Your task to perform on an android device: toggle show notifications on the lock screen Image 0: 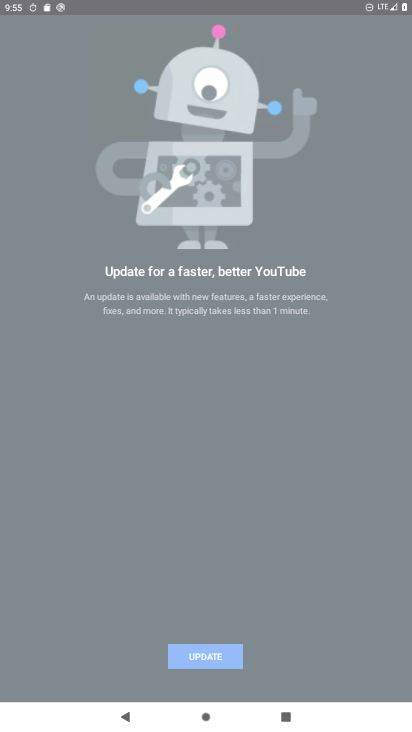
Step 0: drag from (185, 5) to (207, 576)
Your task to perform on an android device: toggle show notifications on the lock screen Image 1: 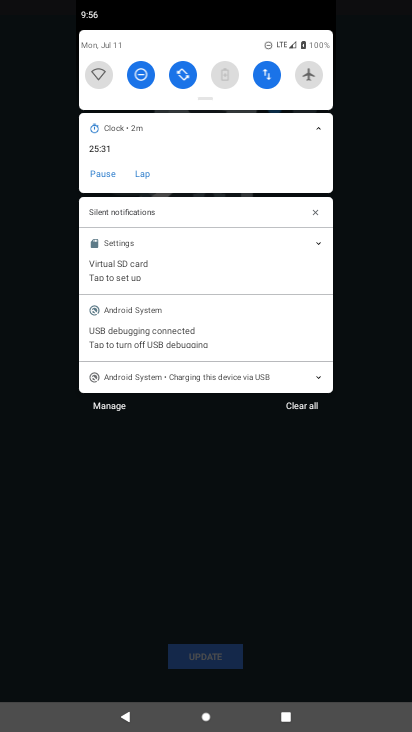
Step 1: drag from (208, 49) to (232, 642)
Your task to perform on an android device: toggle show notifications on the lock screen Image 2: 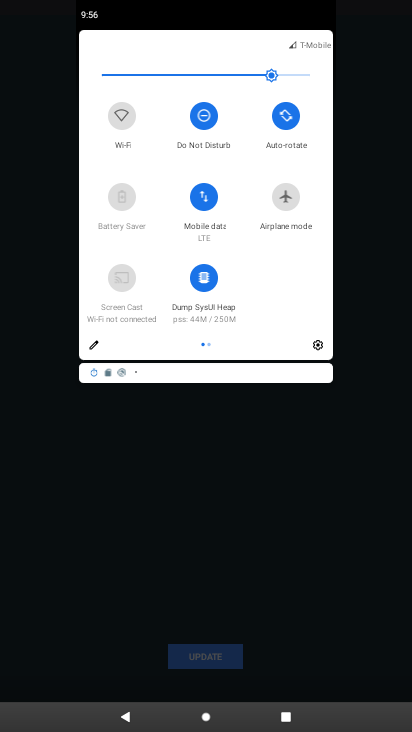
Step 2: click (325, 343)
Your task to perform on an android device: toggle show notifications on the lock screen Image 3: 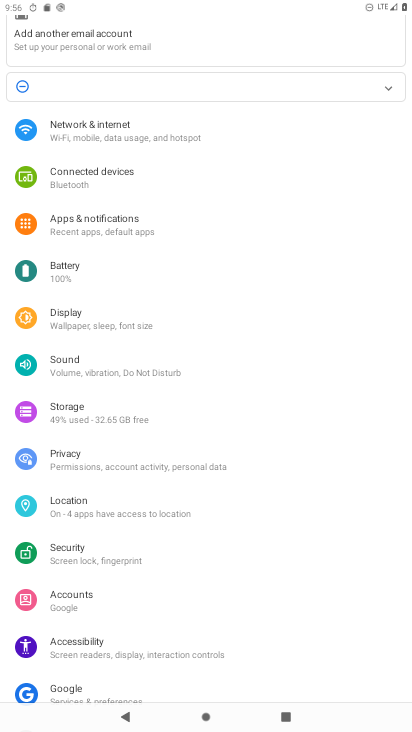
Step 3: click (181, 223)
Your task to perform on an android device: toggle show notifications on the lock screen Image 4: 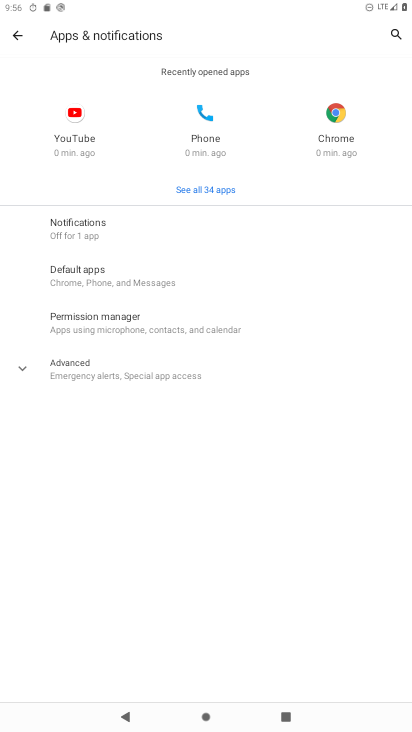
Step 4: click (181, 223)
Your task to perform on an android device: toggle show notifications on the lock screen Image 5: 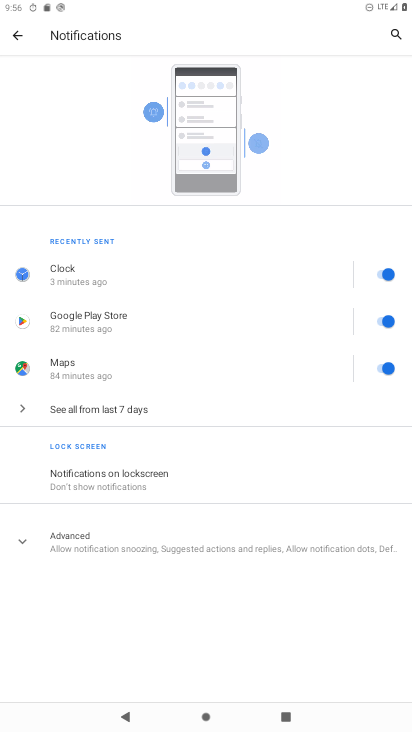
Step 5: click (171, 487)
Your task to perform on an android device: toggle show notifications on the lock screen Image 6: 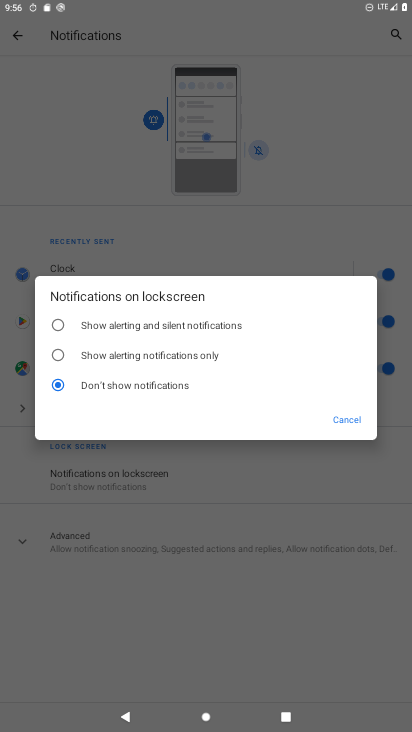
Step 6: click (159, 334)
Your task to perform on an android device: toggle show notifications on the lock screen Image 7: 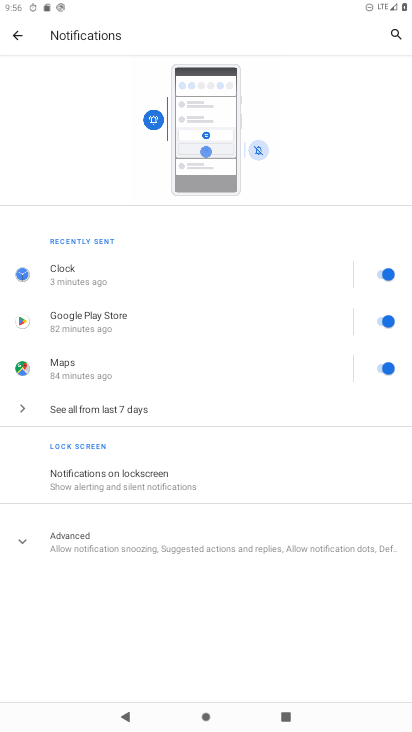
Step 7: task complete